Your task to perform on an android device: open a bookmark in the chrome app Image 0: 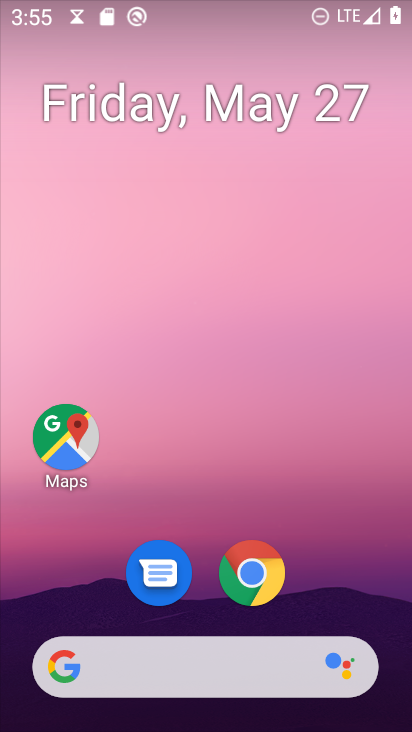
Step 0: click (269, 586)
Your task to perform on an android device: open a bookmark in the chrome app Image 1: 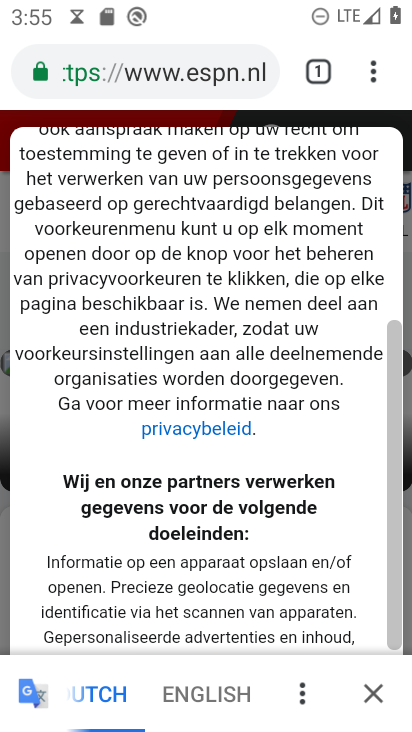
Step 1: click (370, 69)
Your task to perform on an android device: open a bookmark in the chrome app Image 2: 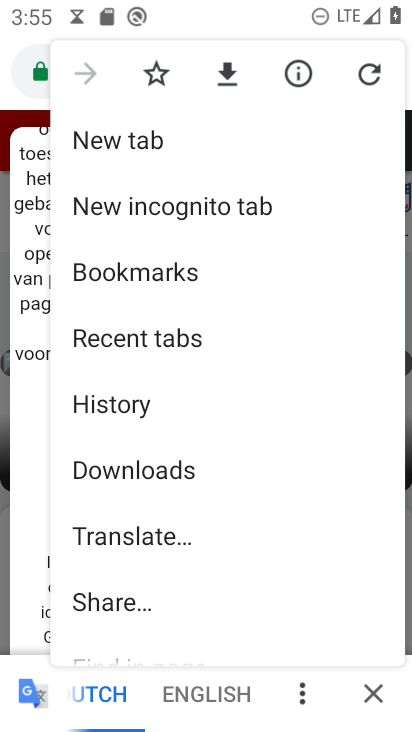
Step 2: click (155, 266)
Your task to perform on an android device: open a bookmark in the chrome app Image 3: 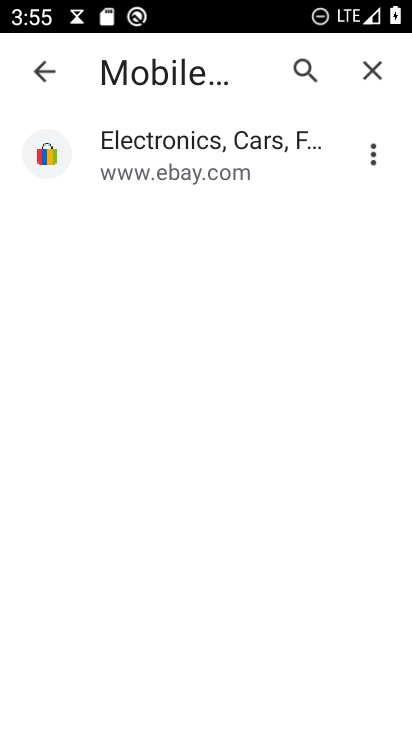
Step 3: click (165, 172)
Your task to perform on an android device: open a bookmark in the chrome app Image 4: 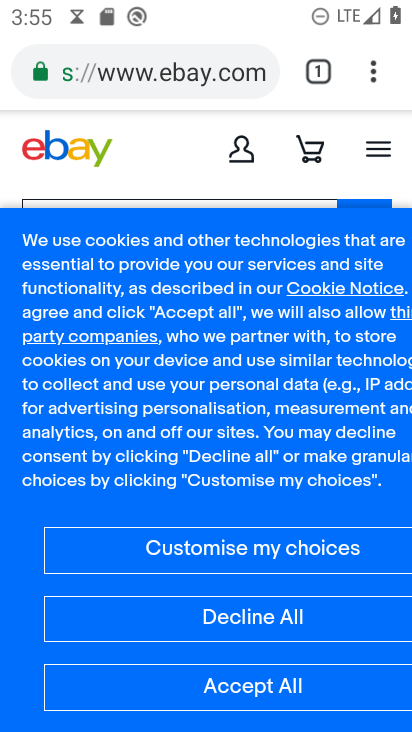
Step 4: task complete